Your task to perform on an android device: turn off smart reply in the gmail app Image 0: 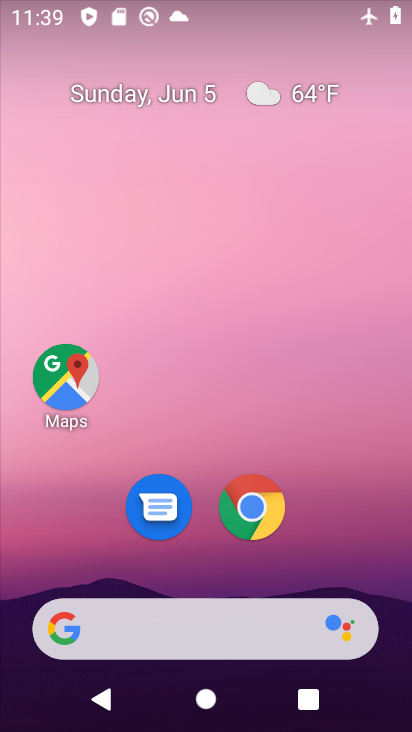
Step 0: drag from (307, 527) to (324, 32)
Your task to perform on an android device: turn off smart reply in the gmail app Image 1: 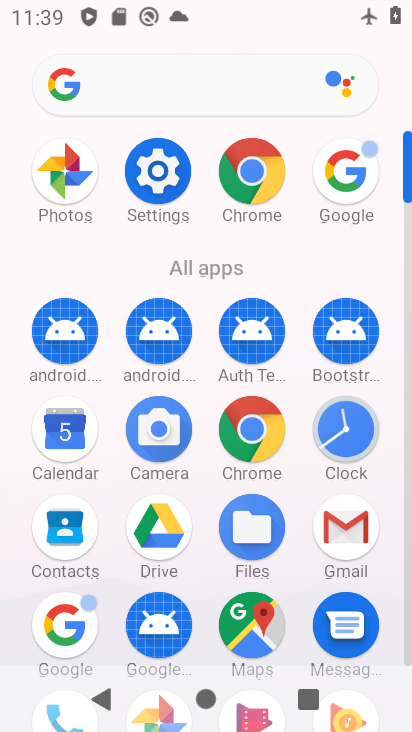
Step 1: click (350, 545)
Your task to perform on an android device: turn off smart reply in the gmail app Image 2: 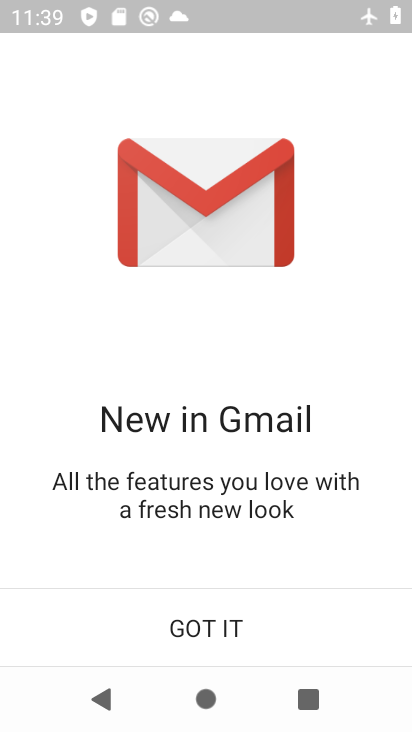
Step 2: click (241, 631)
Your task to perform on an android device: turn off smart reply in the gmail app Image 3: 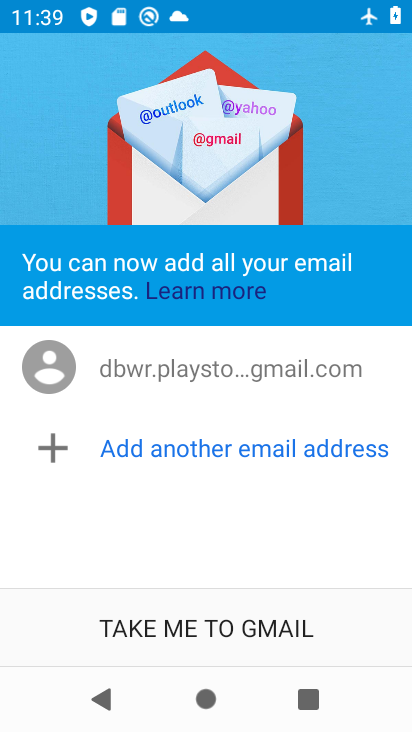
Step 3: click (226, 643)
Your task to perform on an android device: turn off smart reply in the gmail app Image 4: 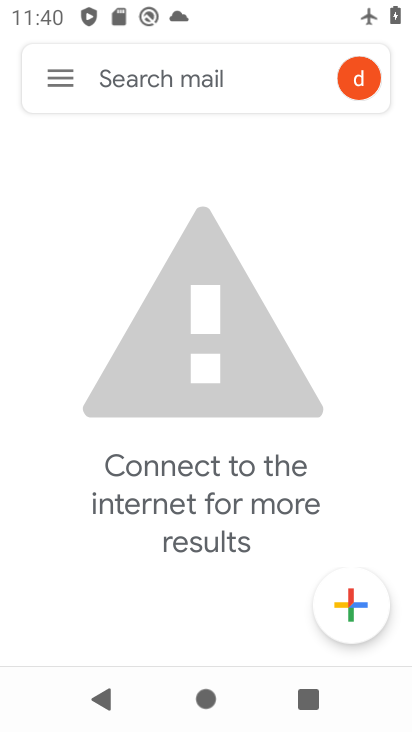
Step 4: task complete